Your task to perform on an android device: Open Google Maps Image 0: 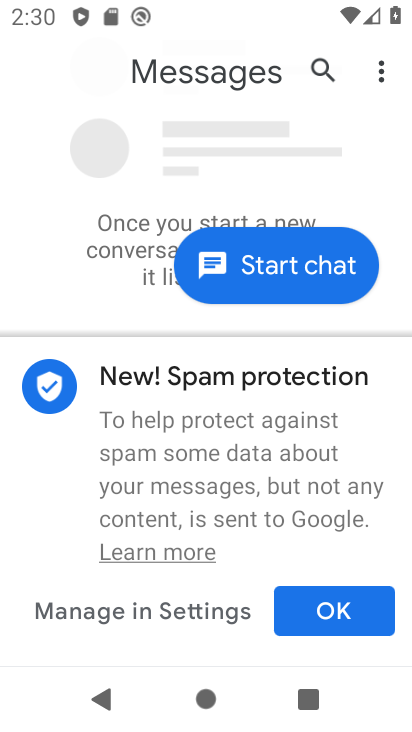
Step 0: press home button
Your task to perform on an android device: Open Google Maps Image 1: 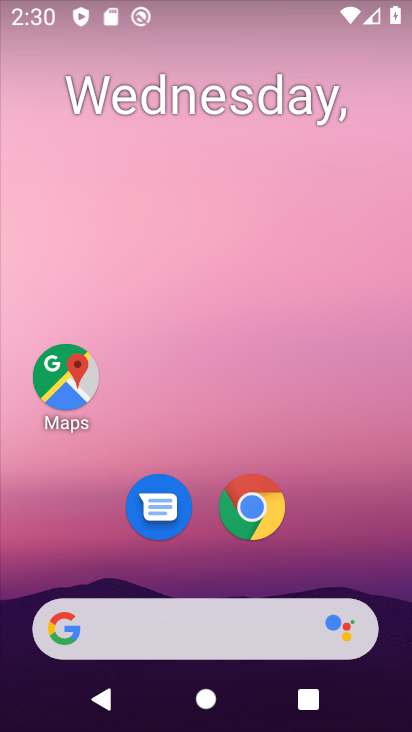
Step 1: click (65, 388)
Your task to perform on an android device: Open Google Maps Image 2: 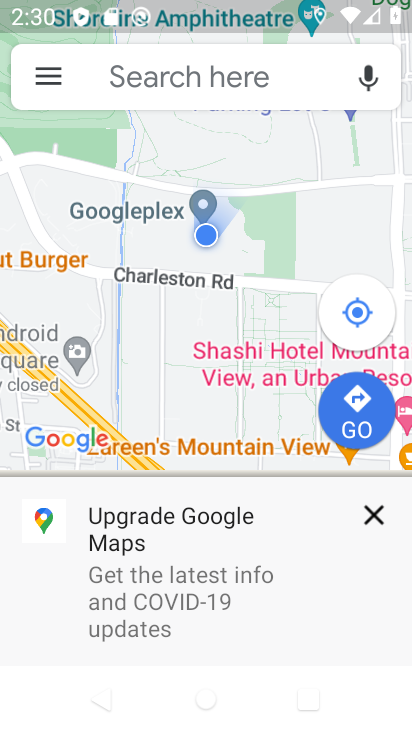
Step 2: task complete